Your task to perform on an android device: View the shopping cart on newegg. Search for "acer nitro" on newegg, select the first entry, add it to the cart, then select checkout. Image 0: 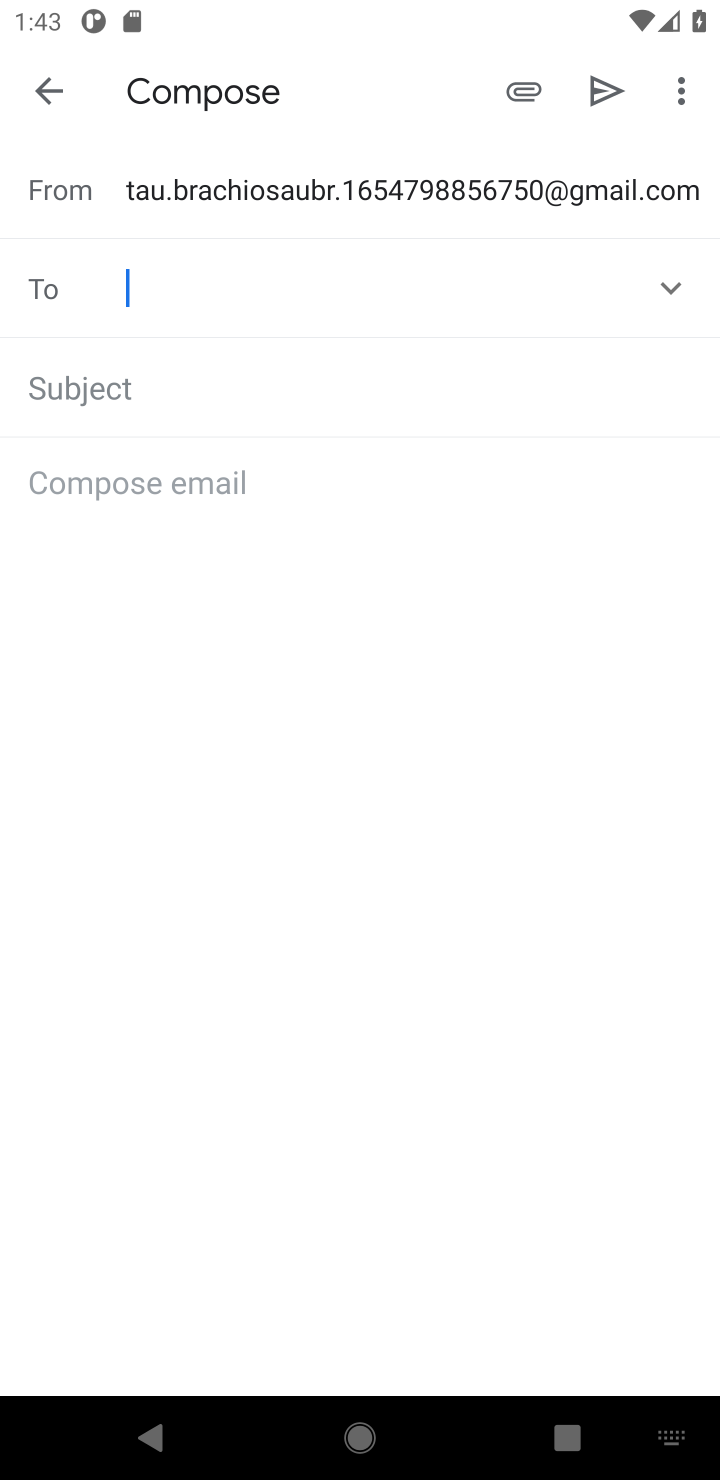
Step 0: press home button
Your task to perform on an android device: View the shopping cart on newegg. Search for "acer nitro" on newegg, select the first entry, add it to the cart, then select checkout. Image 1: 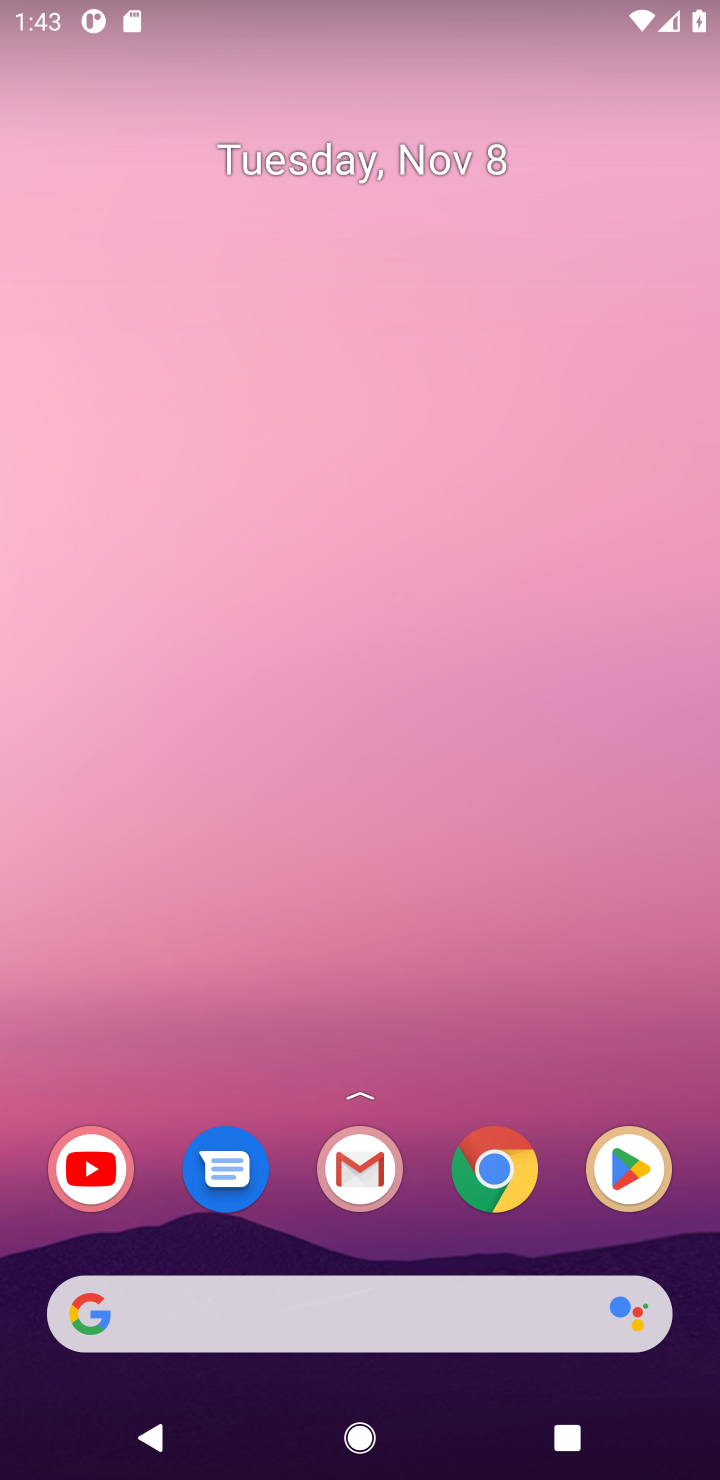
Step 1: click (493, 1178)
Your task to perform on an android device: View the shopping cart on newegg. Search for "acer nitro" on newegg, select the first entry, add it to the cart, then select checkout. Image 2: 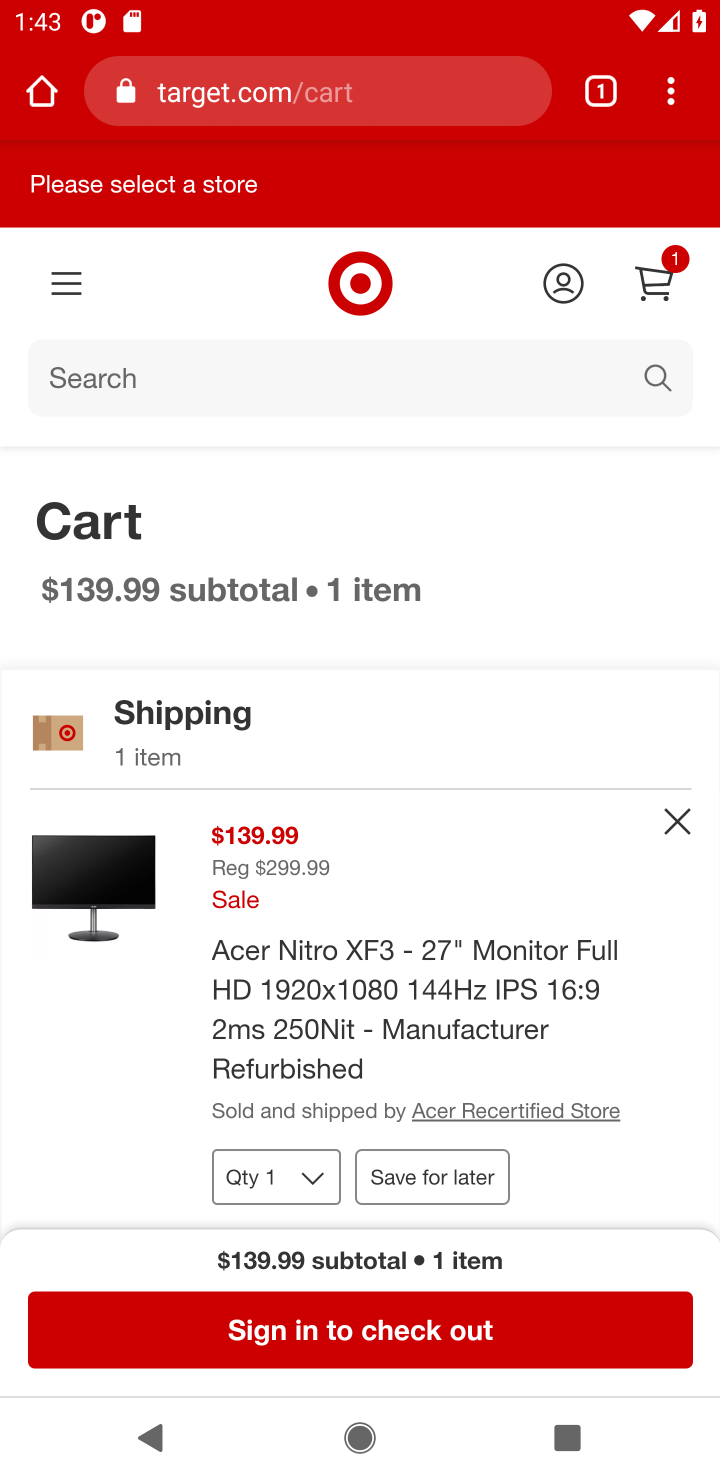
Step 2: click (514, 1314)
Your task to perform on an android device: View the shopping cart on newegg. Search for "acer nitro" on newegg, select the first entry, add it to the cart, then select checkout. Image 3: 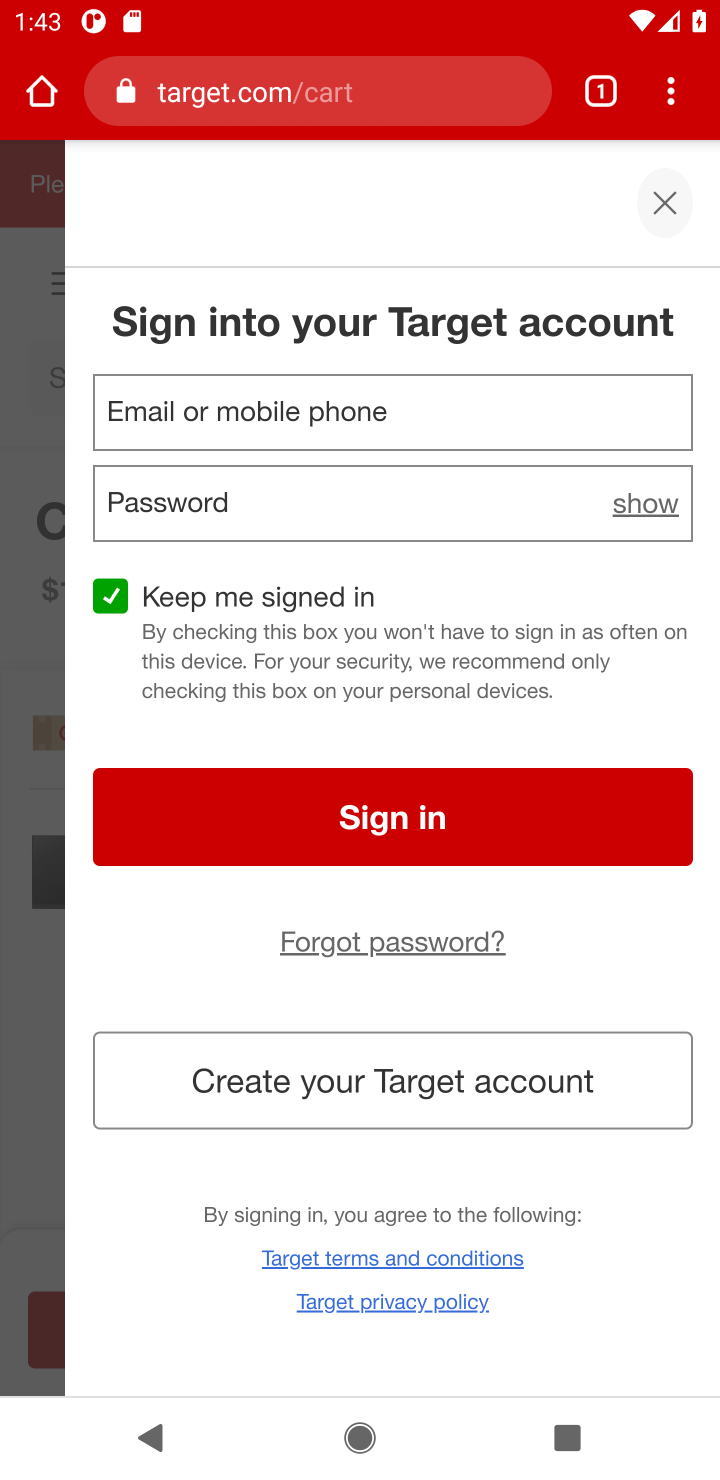
Step 3: task complete